Your task to perform on an android device: Open notification settings Image 0: 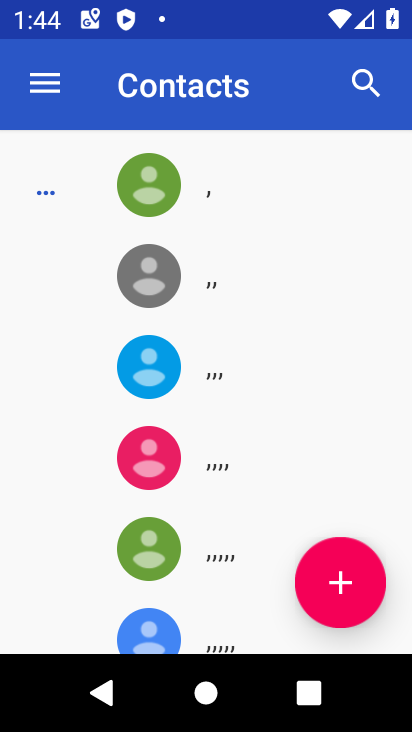
Step 0: press home button
Your task to perform on an android device: Open notification settings Image 1: 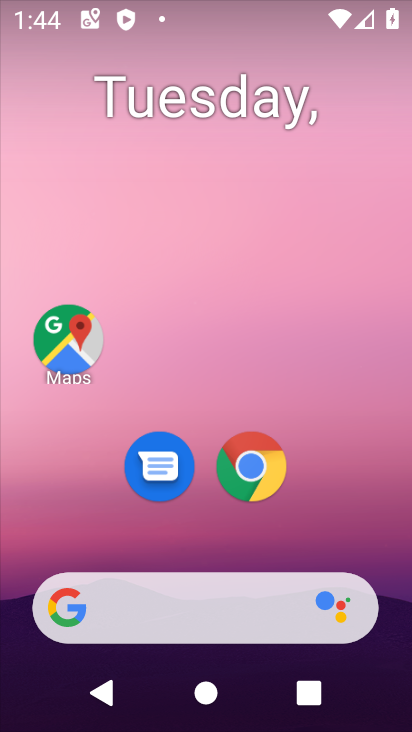
Step 1: task complete